Your task to perform on an android device: Open network settings Image 0: 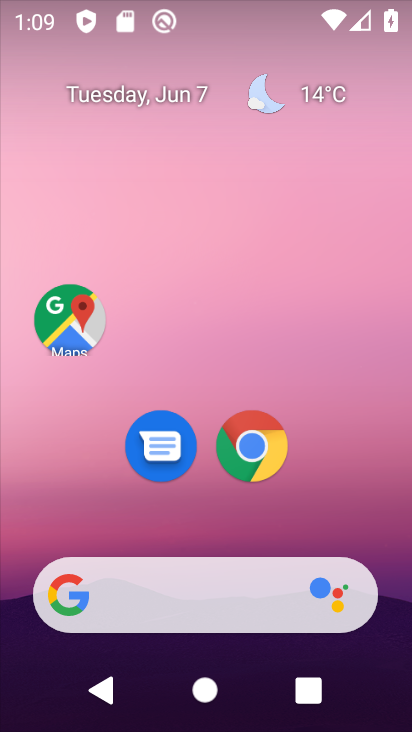
Step 0: drag from (155, 655) to (249, 143)
Your task to perform on an android device: Open network settings Image 1: 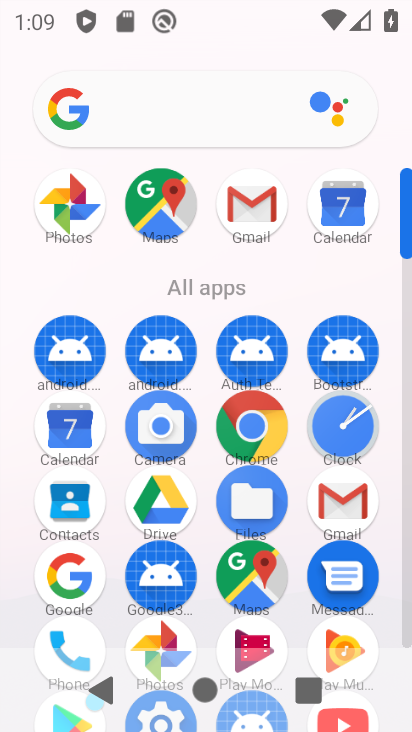
Step 1: drag from (306, 643) to (215, 78)
Your task to perform on an android device: Open network settings Image 2: 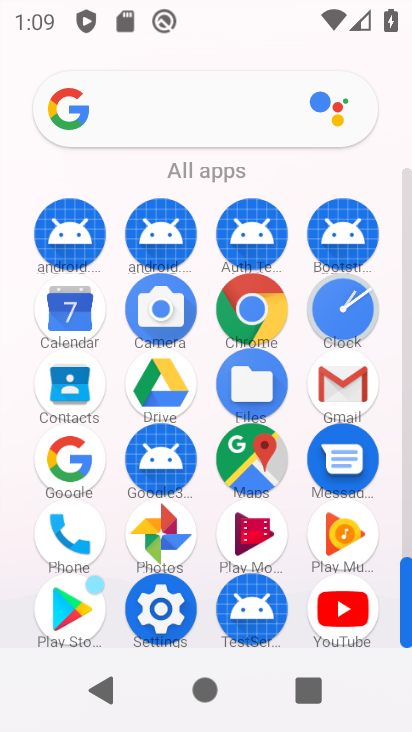
Step 2: click (163, 624)
Your task to perform on an android device: Open network settings Image 3: 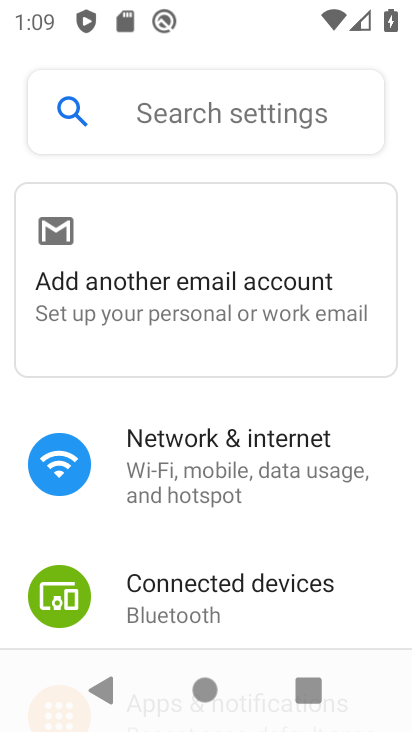
Step 3: click (230, 440)
Your task to perform on an android device: Open network settings Image 4: 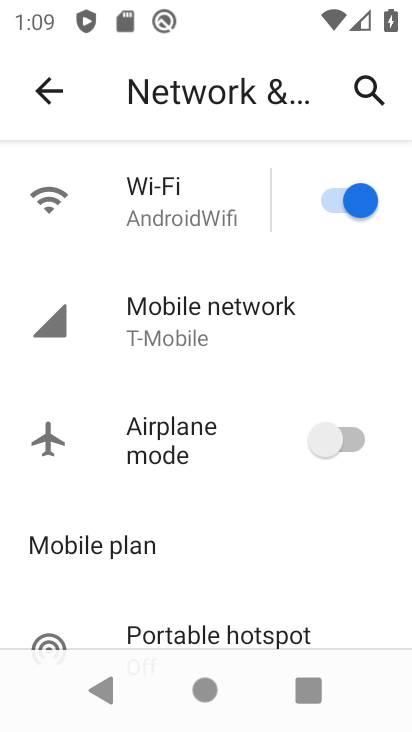
Step 4: task complete